Your task to perform on an android device: turn on airplane mode Image 0: 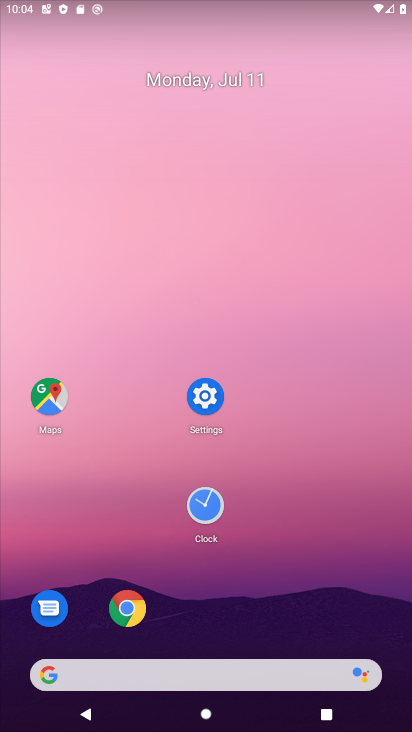
Step 0: click (189, 394)
Your task to perform on an android device: turn on airplane mode Image 1: 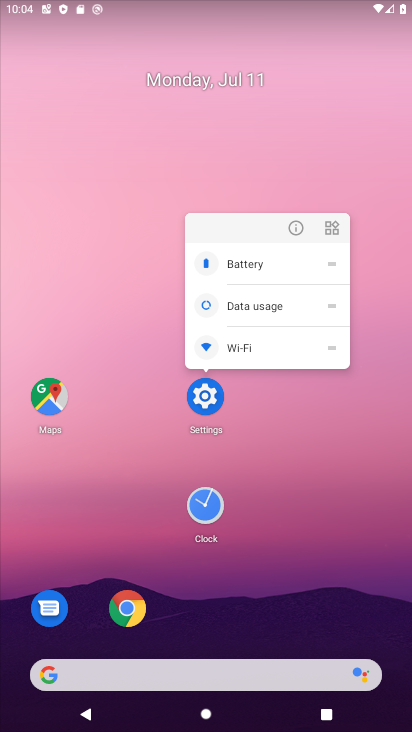
Step 1: click (215, 395)
Your task to perform on an android device: turn on airplane mode Image 2: 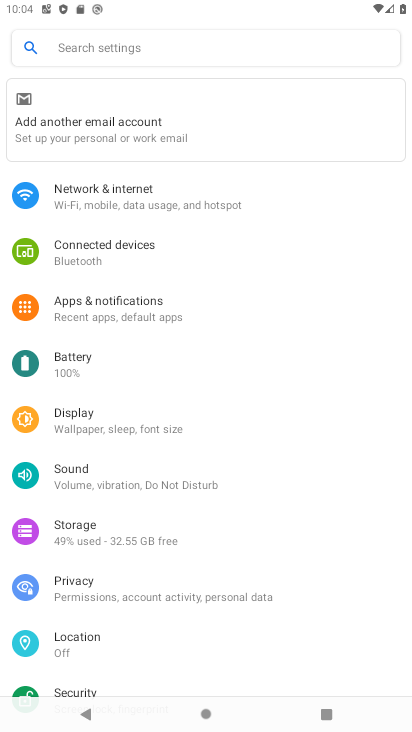
Step 2: click (88, 200)
Your task to perform on an android device: turn on airplane mode Image 3: 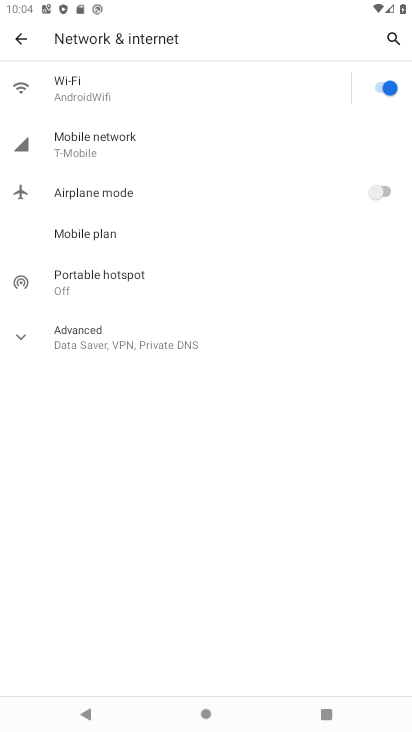
Step 3: click (383, 192)
Your task to perform on an android device: turn on airplane mode Image 4: 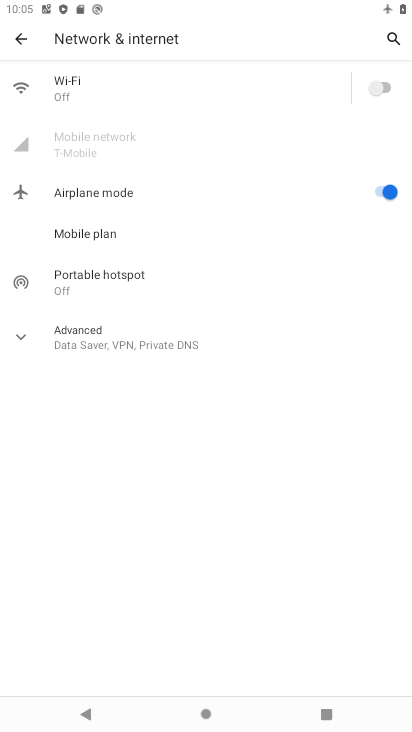
Step 4: task complete